Your task to perform on an android device: change the clock display to show seconds Image 0: 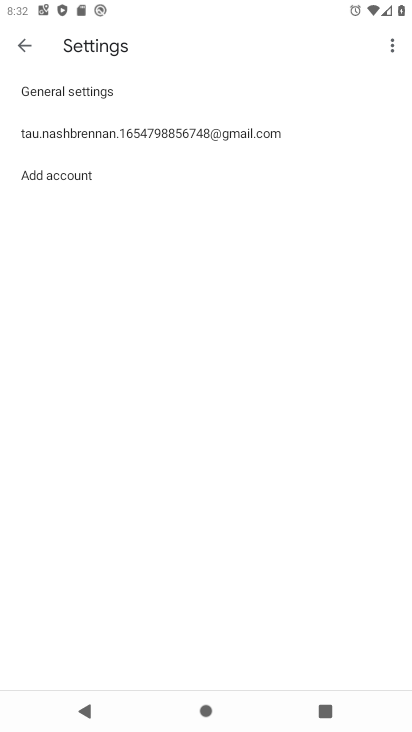
Step 0: press home button
Your task to perform on an android device: change the clock display to show seconds Image 1: 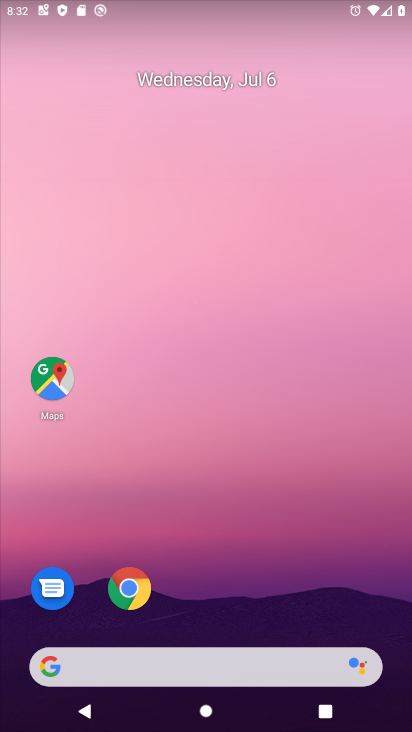
Step 1: drag from (209, 635) to (231, 244)
Your task to perform on an android device: change the clock display to show seconds Image 2: 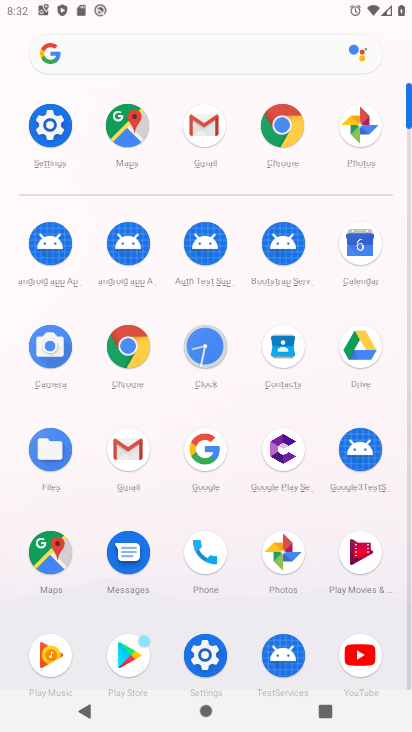
Step 2: click (198, 336)
Your task to perform on an android device: change the clock display to show seconds Image 3: 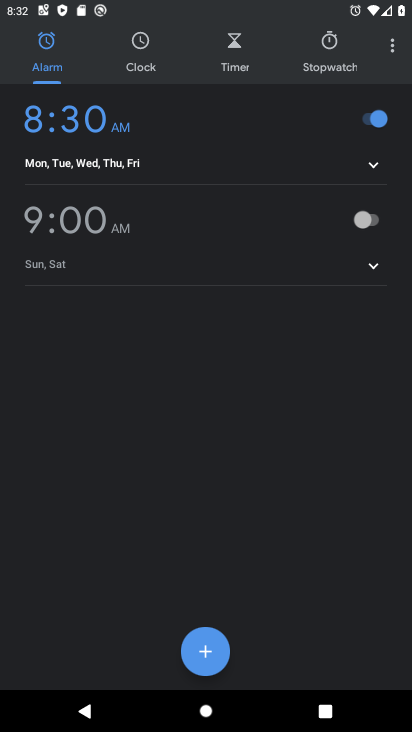
Step 3: click (404, 42)
Your task to perform on an android device: change the clock display to show seconds Image 4: 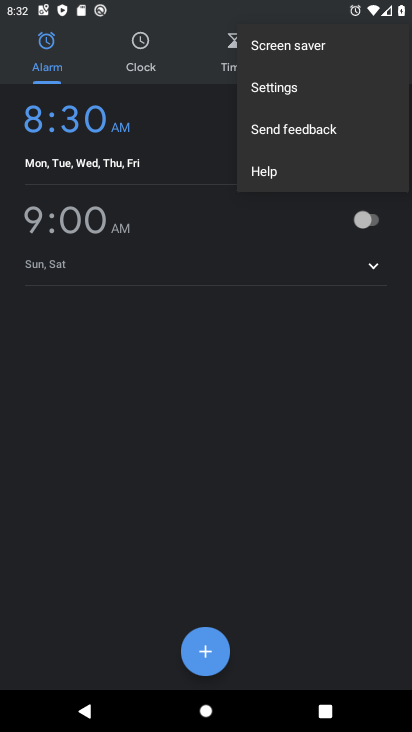
Step 4: click (292, 84)
Your task to perform on an android device: change the clock display to show seconds Image 5: 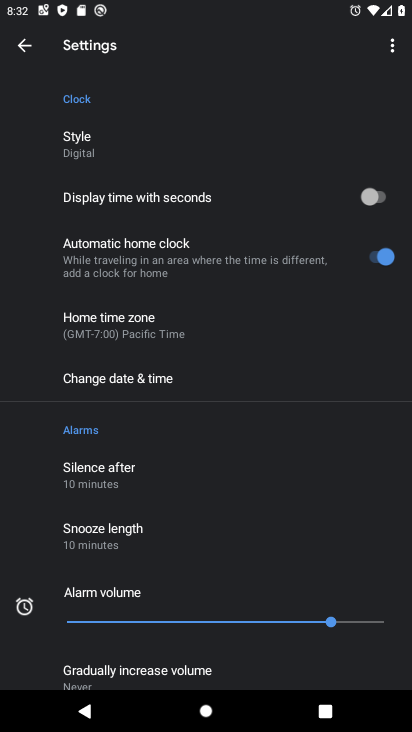
Step 5: click (361, 192)
Your task to perform on an android device: change the clock display to show seconds Image 6: 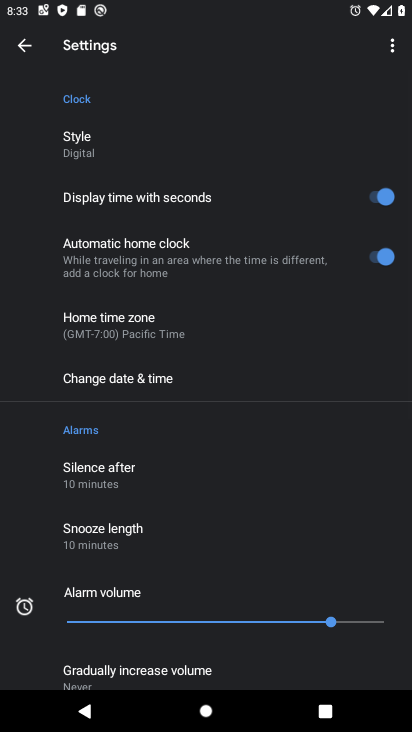
Step 6: task complete